Your task to perform on an android device: Go to sound settings Image 0: 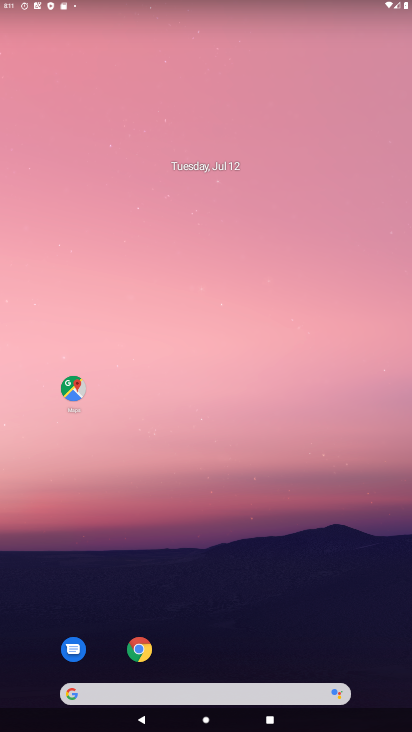
Step 0: drag from (267, 594) to (262, 119)
Your task to perform on an android device: Go to sound settings Image 1: 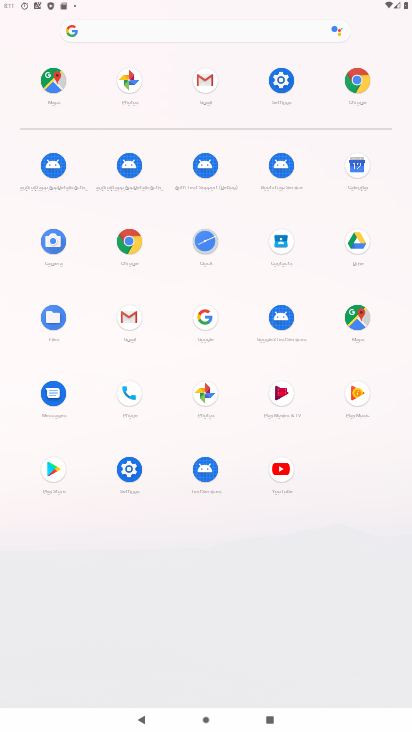
Step 1: click (279, 82)
Your task to perform on an android device: Go to sound settings Image 2: 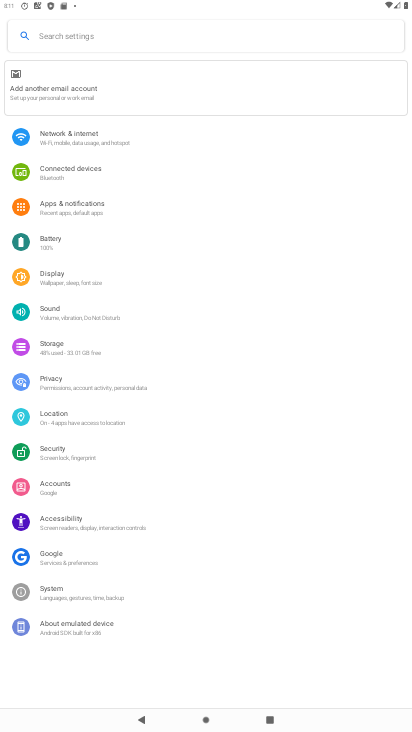
Step 2: click (96, 322)
Your task to perform on an android device: Go to sound settings Image 3: 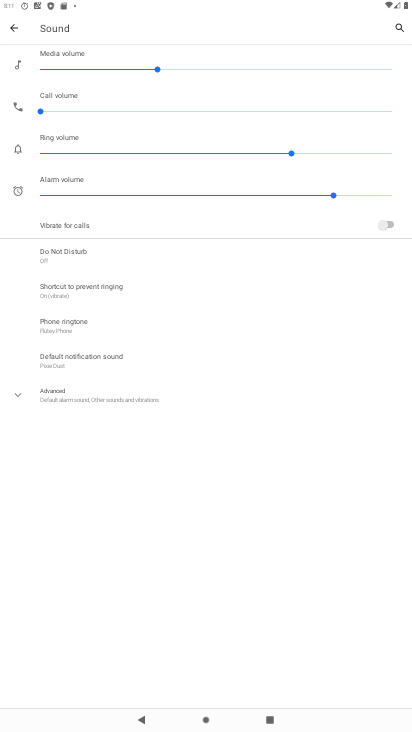
Step 3: task complete